Your task to perform on an android device: Go to notification settings Image 0: 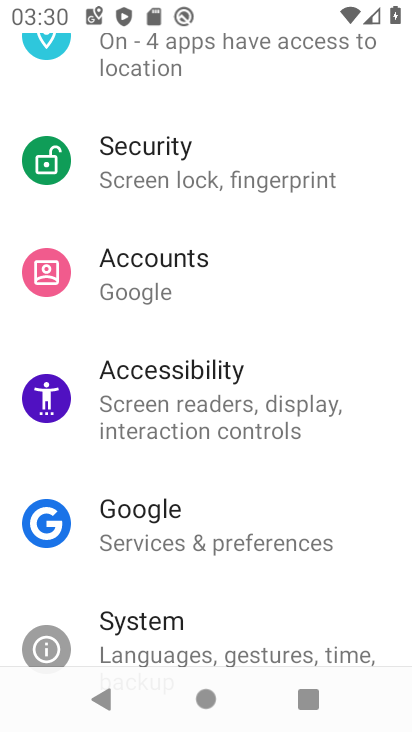
Step 0: drag from (196, 67) to (236, 712)
Your task to perform on an android device: Go to notification settings Image 1: 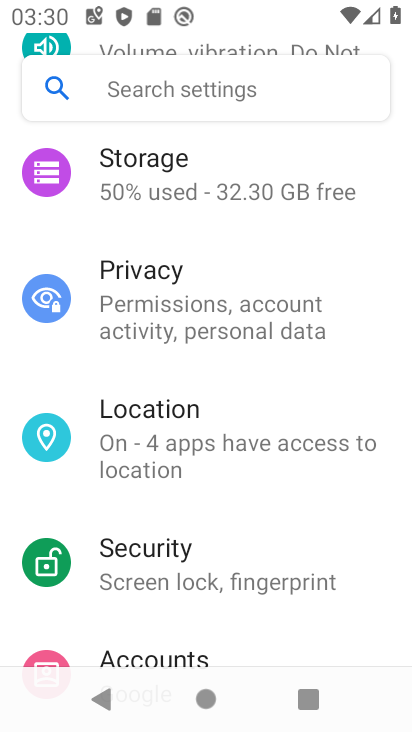
Step 1: drag from (149, 167) to (224, 617)
Your task to perform on an android device: Go to notification settings Image 2: 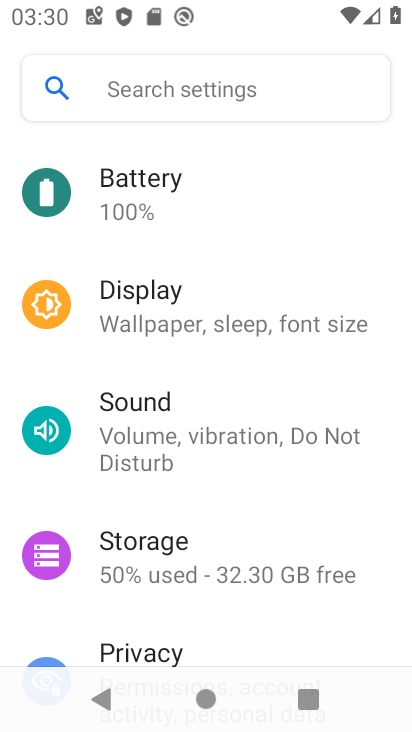
Step 2: drag from (193, 193) to (248, 561)
Your task to perform on an android device: Go to notification settings Image 3: 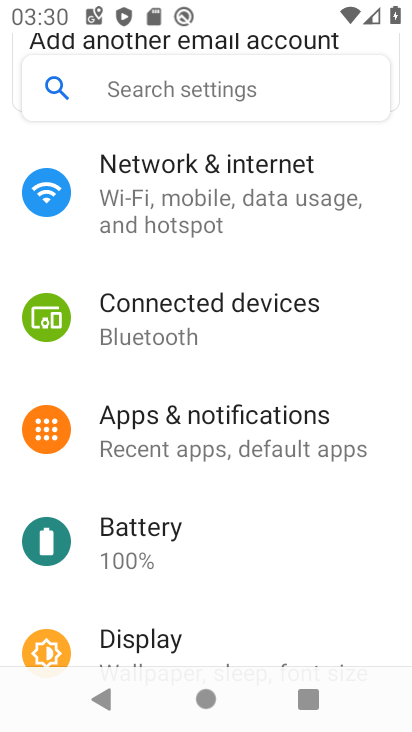
Step 3: click (171, 443)
Your task to perform on an android device: Go to notification settings Image 4: 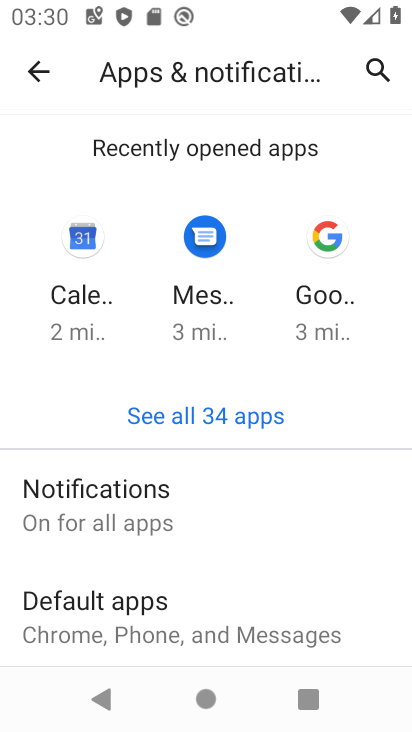
Step 4: task complete